Your task to perform on an android device: Turn on the flashlight Image 0: 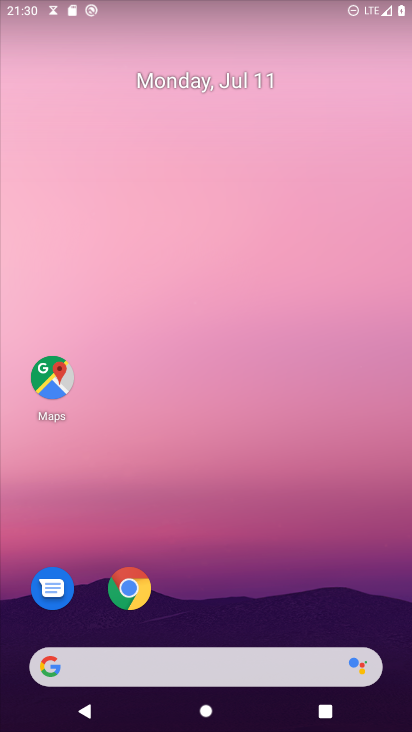
Step 0: drag from (206, 5) to (250, 408)
Your task to perform on an android device: Turn on the flashlight Image 1: 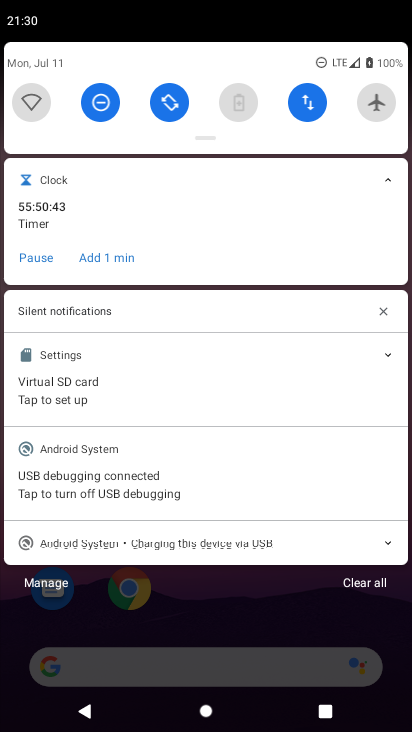
Step 1: task complete